Your task to perform on an android device: Go to display settings Image 0: 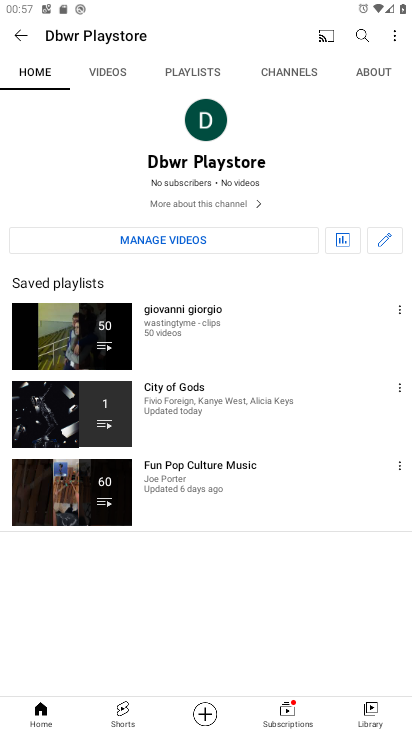
Step 0: press home button
Your task to perform on an android device: Go to display settings Image 1: 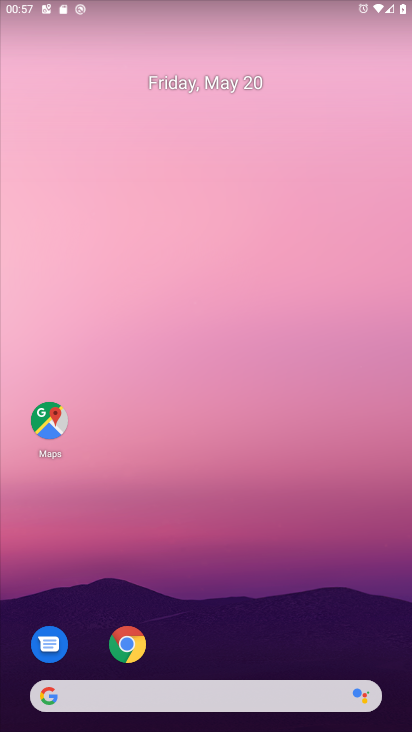
Step 1: drag from (211, 679) to (276, 367)
Your task to perform on an android device: Go to display settings Image 2: 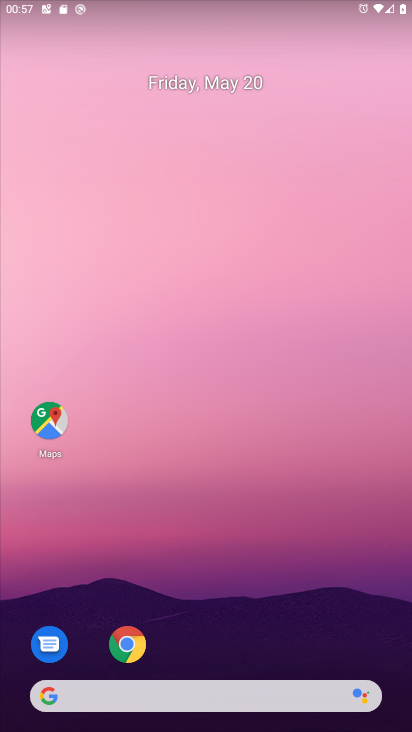
Step 2: drag from (241, 676) to (278, 285)
Your task to perform on an android device: Go to display settings Image 3: 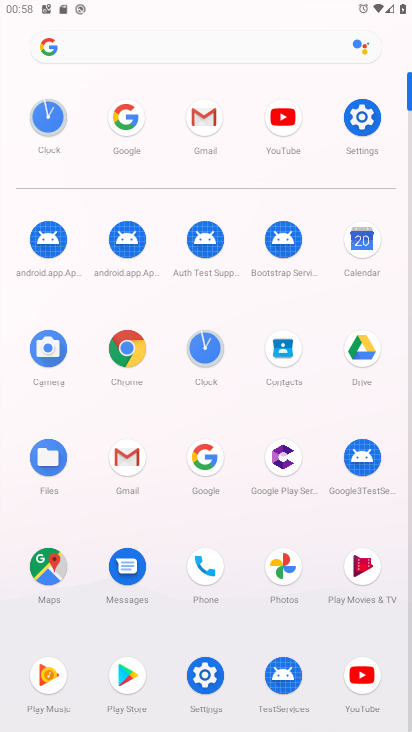
Step 3: click (367, 117)
Your task to perform on an android device: Go to display settings Image 4: 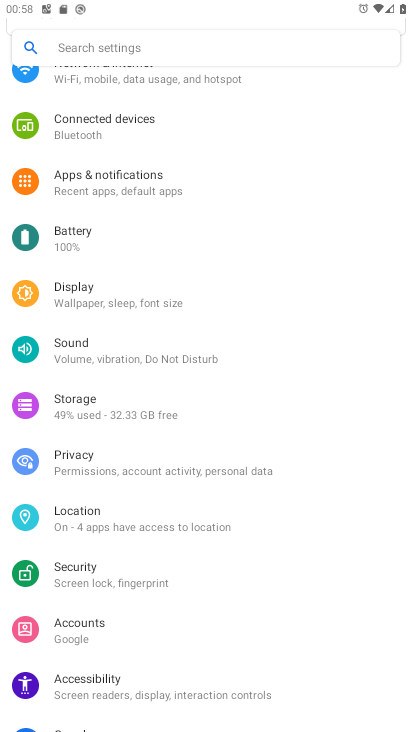
Step 4: click (115, 307)
Your task to perform on an android device: Go to display settings Image 5: 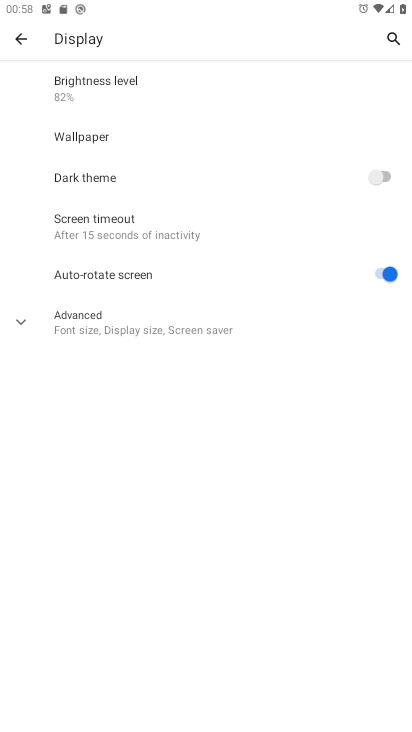
Step 5: click (118, 323)
Your task to perform on an android device: Go to display settings Image 6: 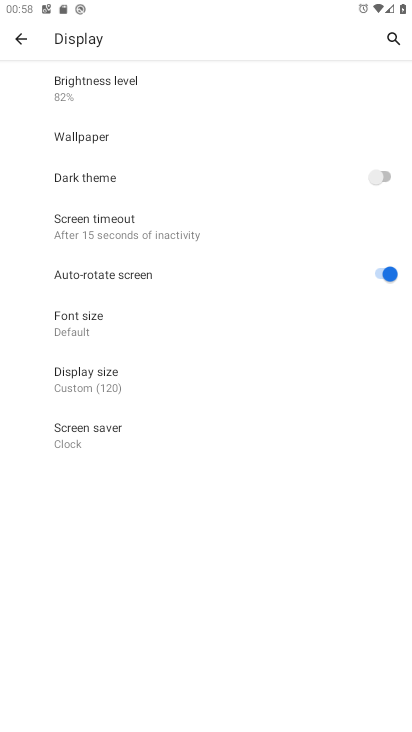
Step 6: task complete